Your task to perform on an android device: turn smart compose on in the gmail app Image 0: 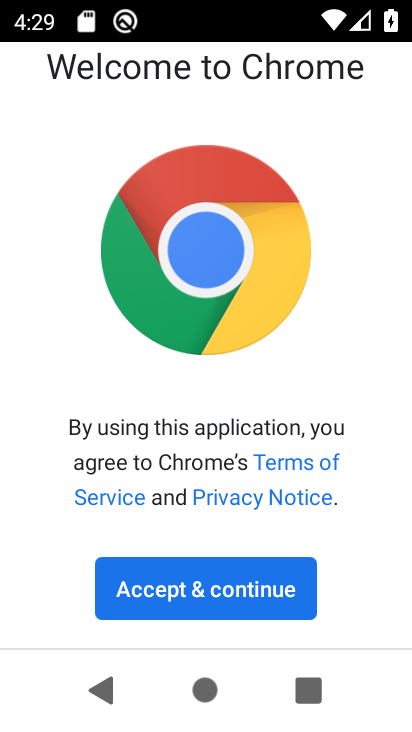
Step 0: press home button
Your task to perform on an android device: turn smart compose on in the gmail app Image 1: 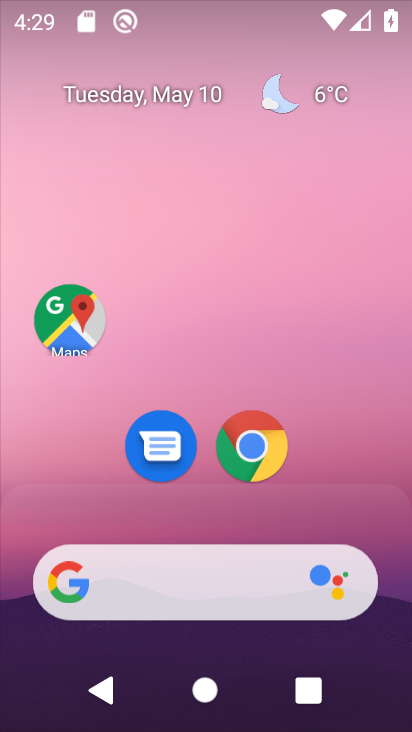
Step 1: drag from (213, 590) to (334, 23)
Your task to perform on an android device: turn smart compose on in the gmail app Image 2: 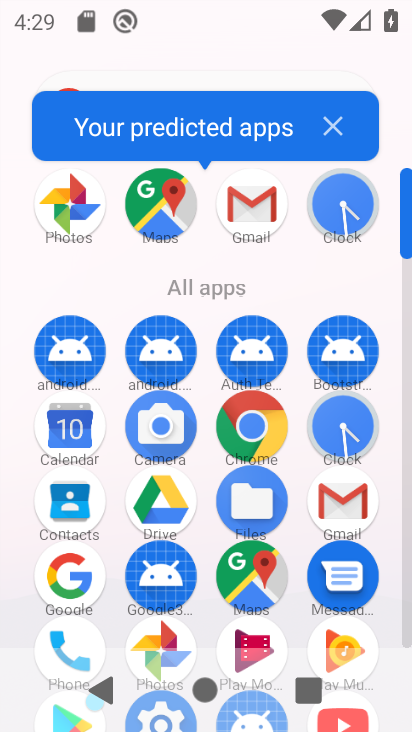
Step 2: click (333, 516)
Your task to perform on an android device: turn smart compose on in the gmail app Image 3: 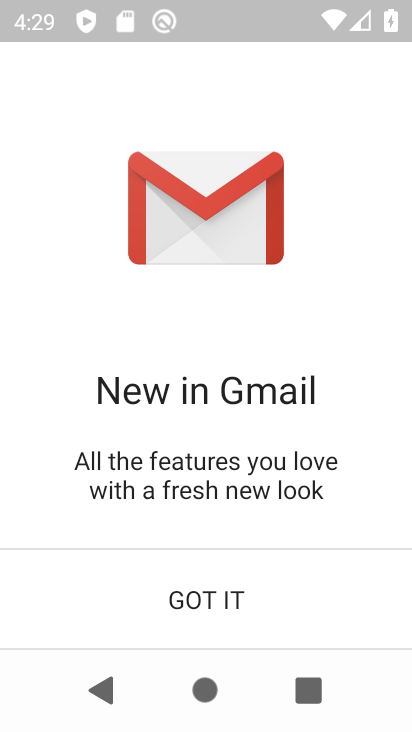
Step 3: click (244, 578)
Your task to perform on an android device: turn smart compose on in the gmail app Image 4: 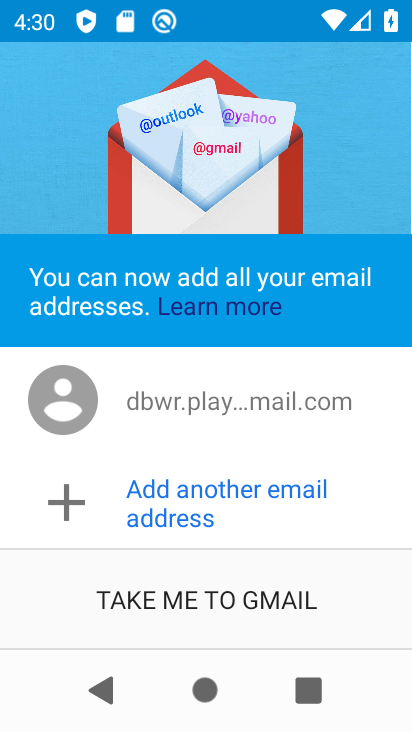
Step 4: click (245, 613)
Your task to perform on an android device: turn smart compose on in the gmail app Image 5: 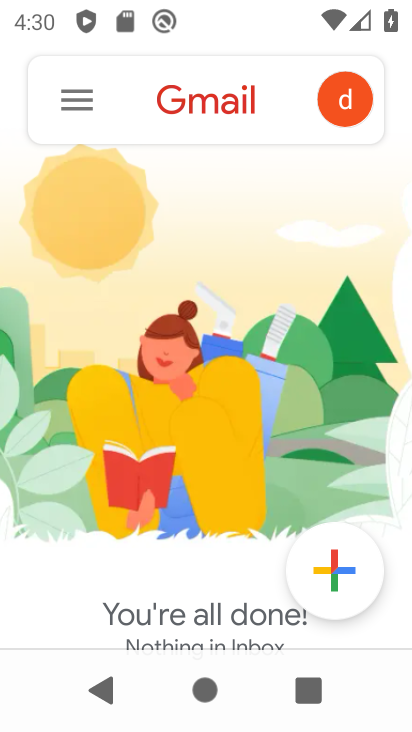
Step 5: click (78, 101)
Your task to perform on an android device: turn smart compose on in the gmail app Image 6: 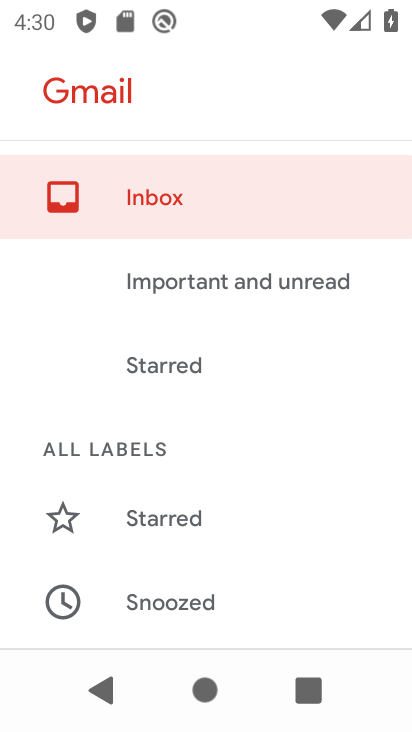
Step 6: drag from (234, 546) to (302, 204)
Your task to perform on an android device: turn smart compose on in the gmail app Image 7: 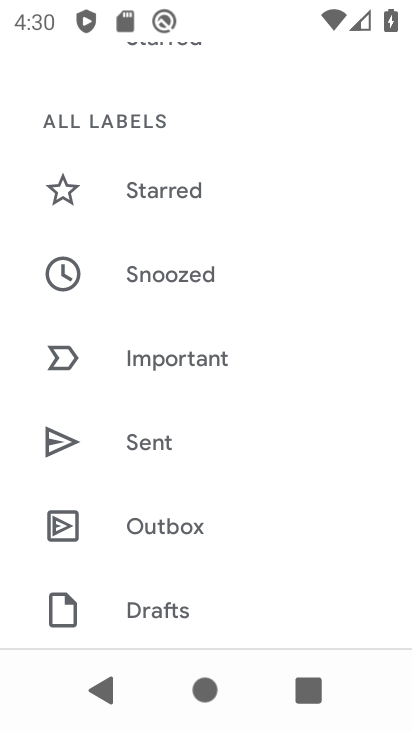
Step 7: drag from (194, 589) to (257, 186)
Your task to perform on an android device: turn smart compose on in the gmail app Image 8: 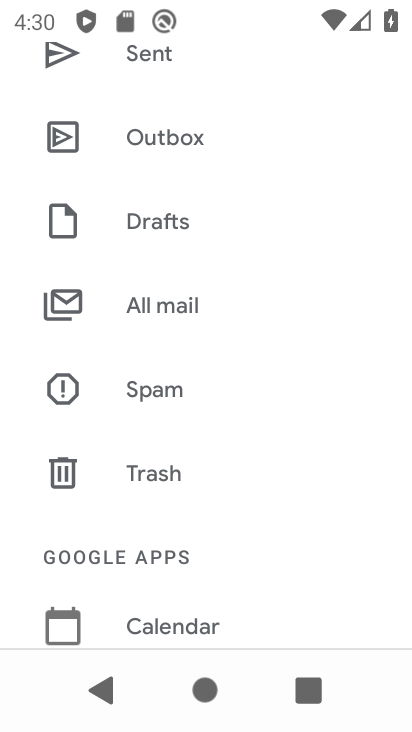
Step 8: drag from (172, 577) to (220, 162)
Your task to perform on an android device: turn smart compose on in the gmail app Image 9: 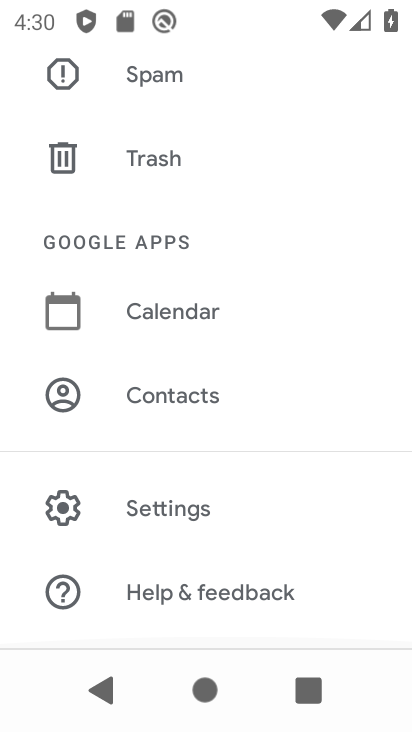
Step 9: click (177, 502)
Your task to perform on an android device: turn smart compose on in the gmail app Image 10: 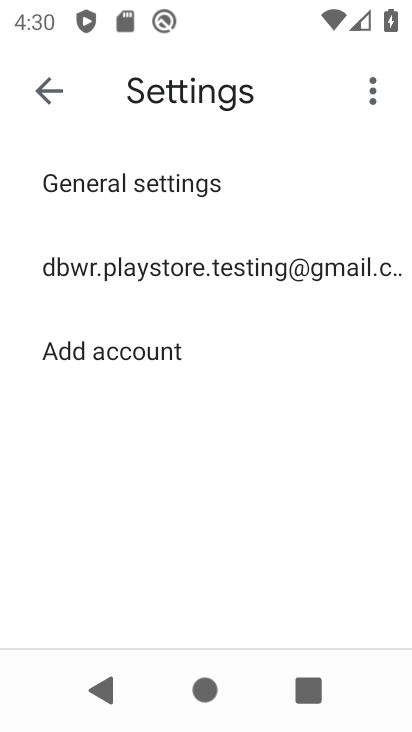
Step 10: click (227, 284)
Your task to perform on an android device: turn smart compose on in the gmail app Image 11: 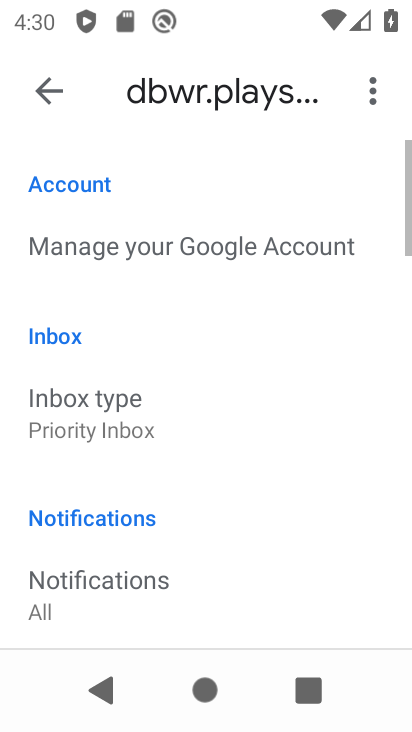
Step 11: task complete